Your task to perform on an android device: Add acer predator to the cart on target, then select checkout. Image 0: 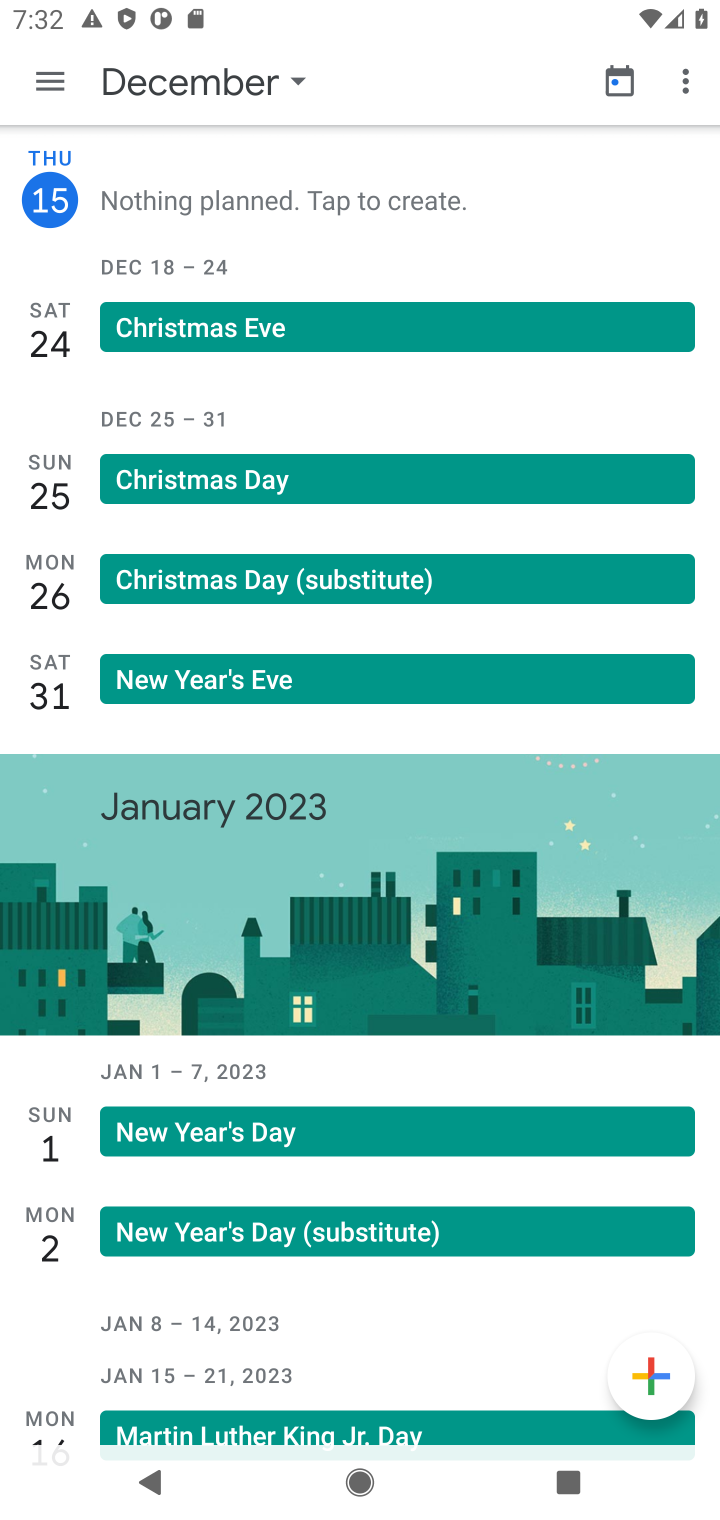
Step 0: press home button
Your task to perform on an android device: Add acer predator to the cart on target, then select checkout. Image 1: 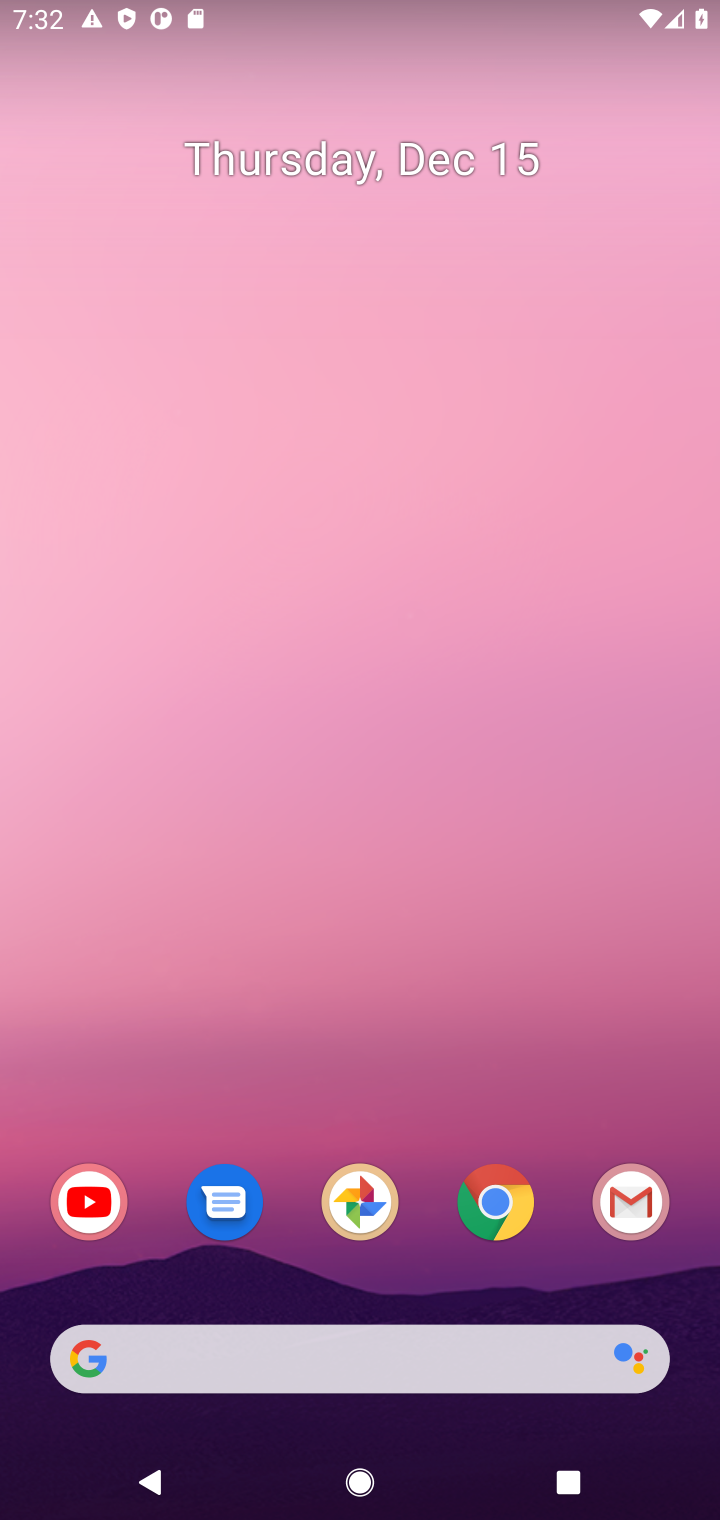
Step 1: click (504, 1206)
Your task to perform on an android device: Add acer predator to the cart on target, then select checkout. Image 2: 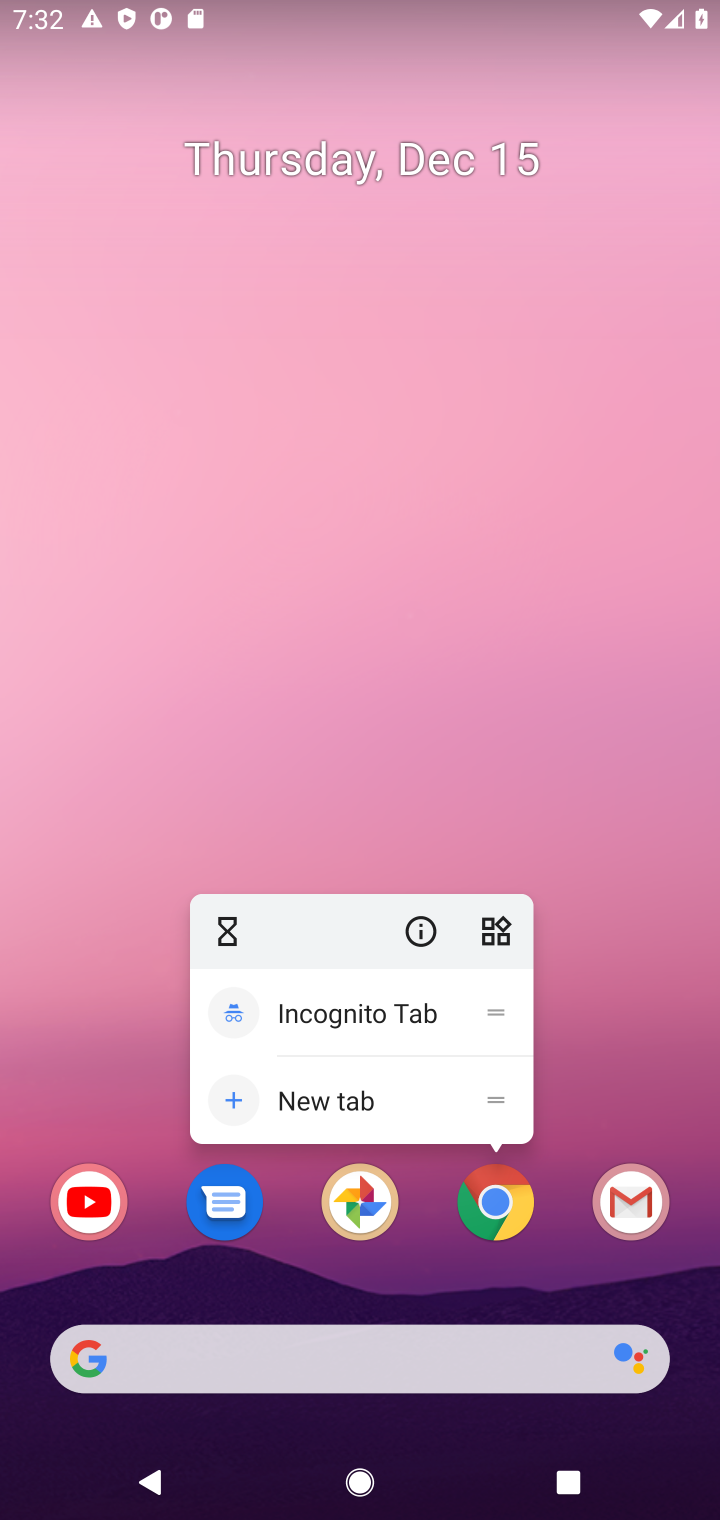
Step 2: click (504, 1206)
Your task to perform on an android device: Add acer predator to the cart on target, then select checkout. Image 3: 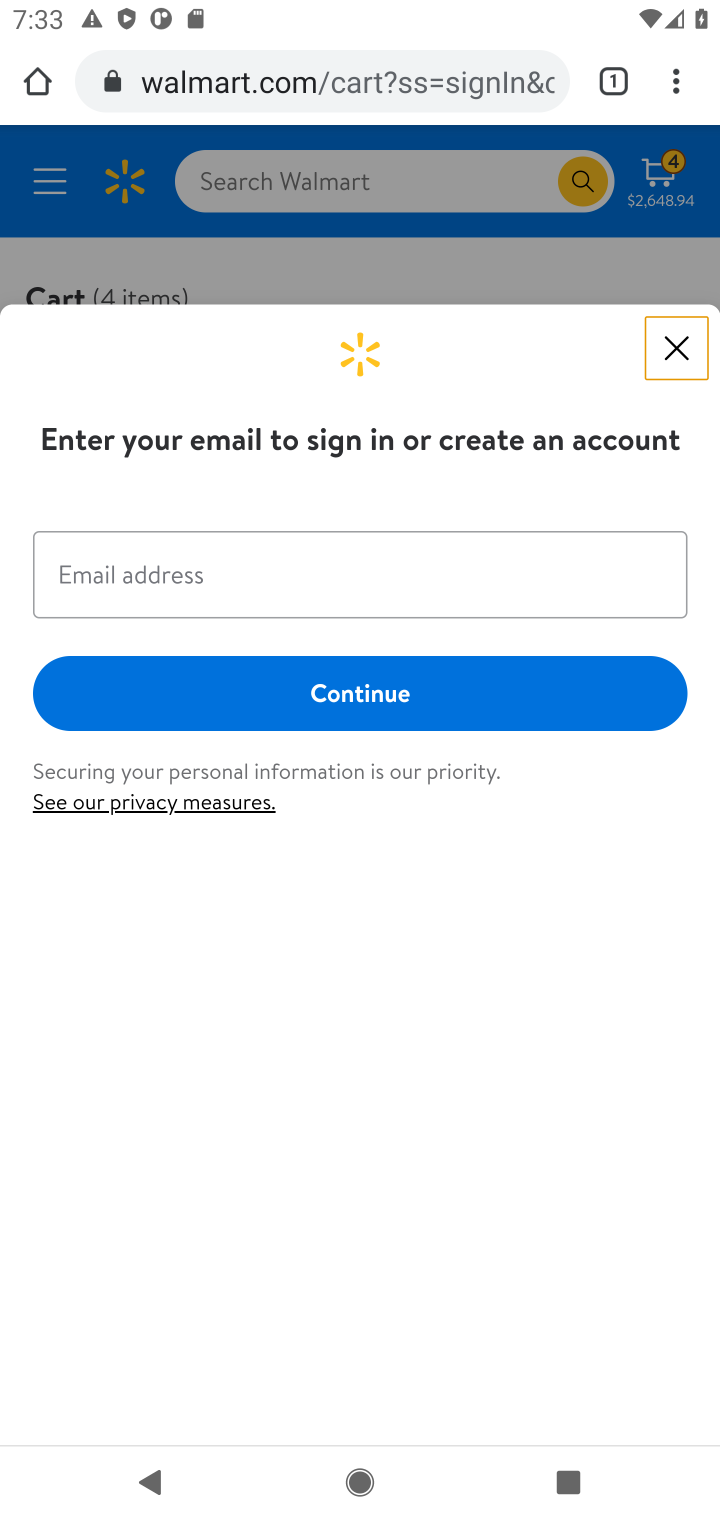
Step 3: click (288, 91)
Your task to perform on an android device: Add acer predator to the cart on target, then select checkout. Image 4: 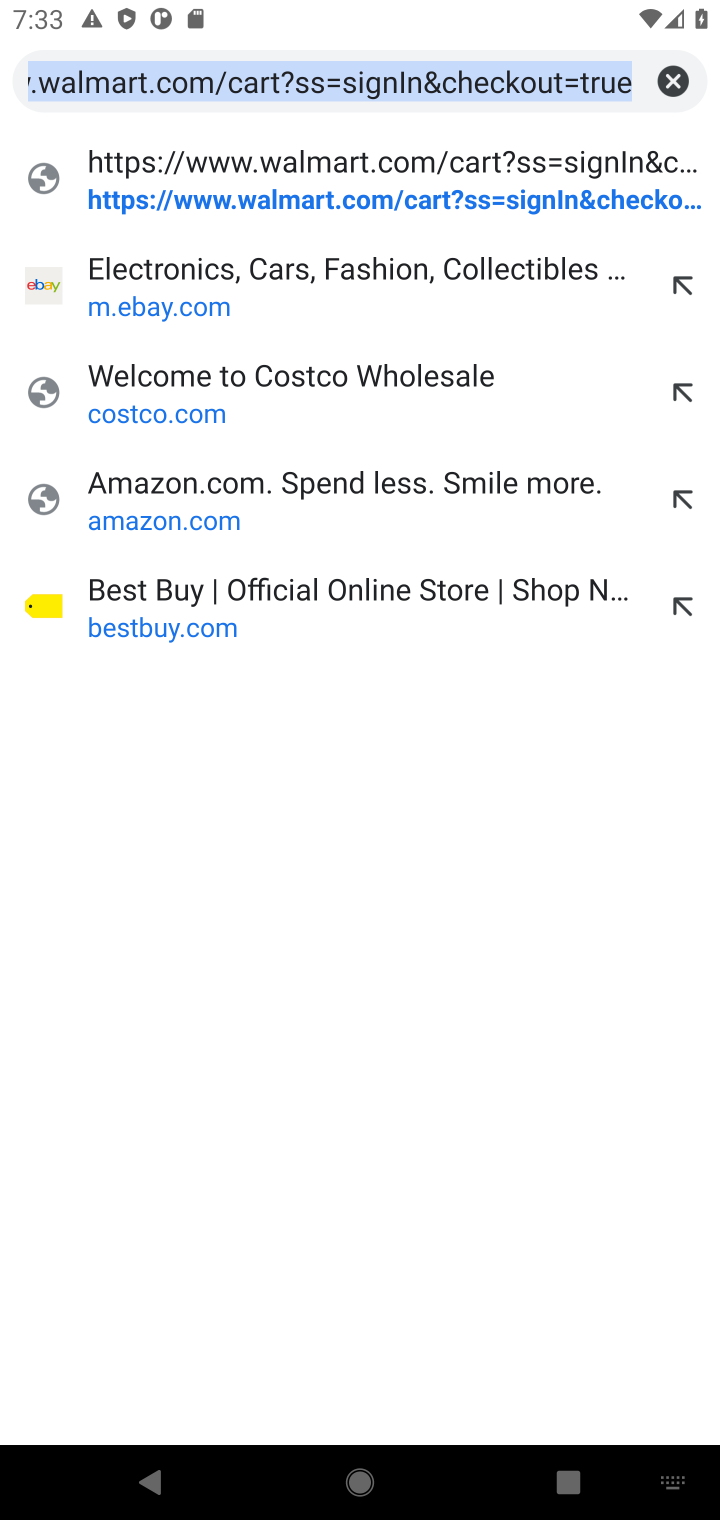
Step 4: type "target.com"
Your task to perform on an android device: Add acer predator to the cart on target, then select checkout. Image 5: 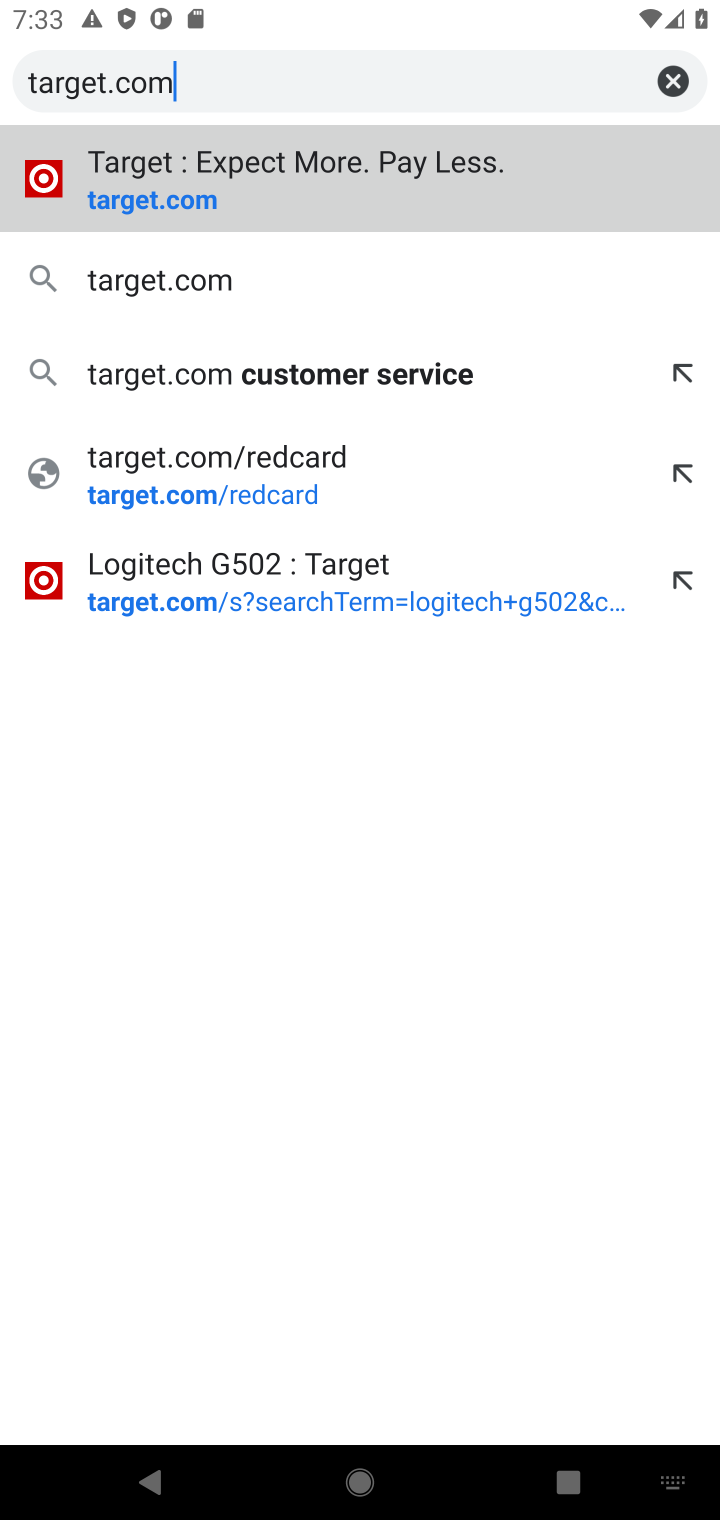
Step 5: click (154, 215)
Your task to perform on an android device: Add acer predator to the cart on target, then select checkout. Image 6: 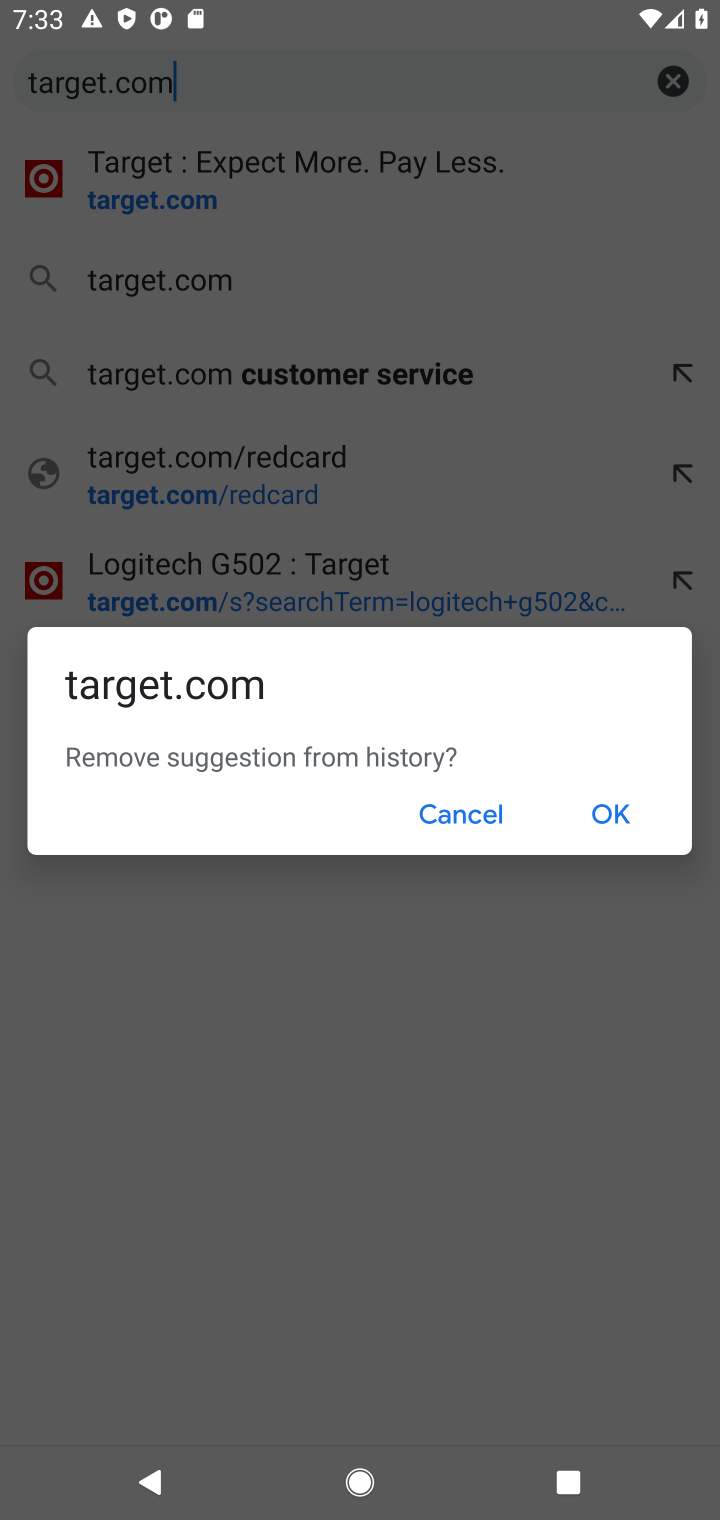
Step 6: click (488, 801)
Your task to perform on an android device: Add acer predator to the cart on target, then select checkout. Image 7: 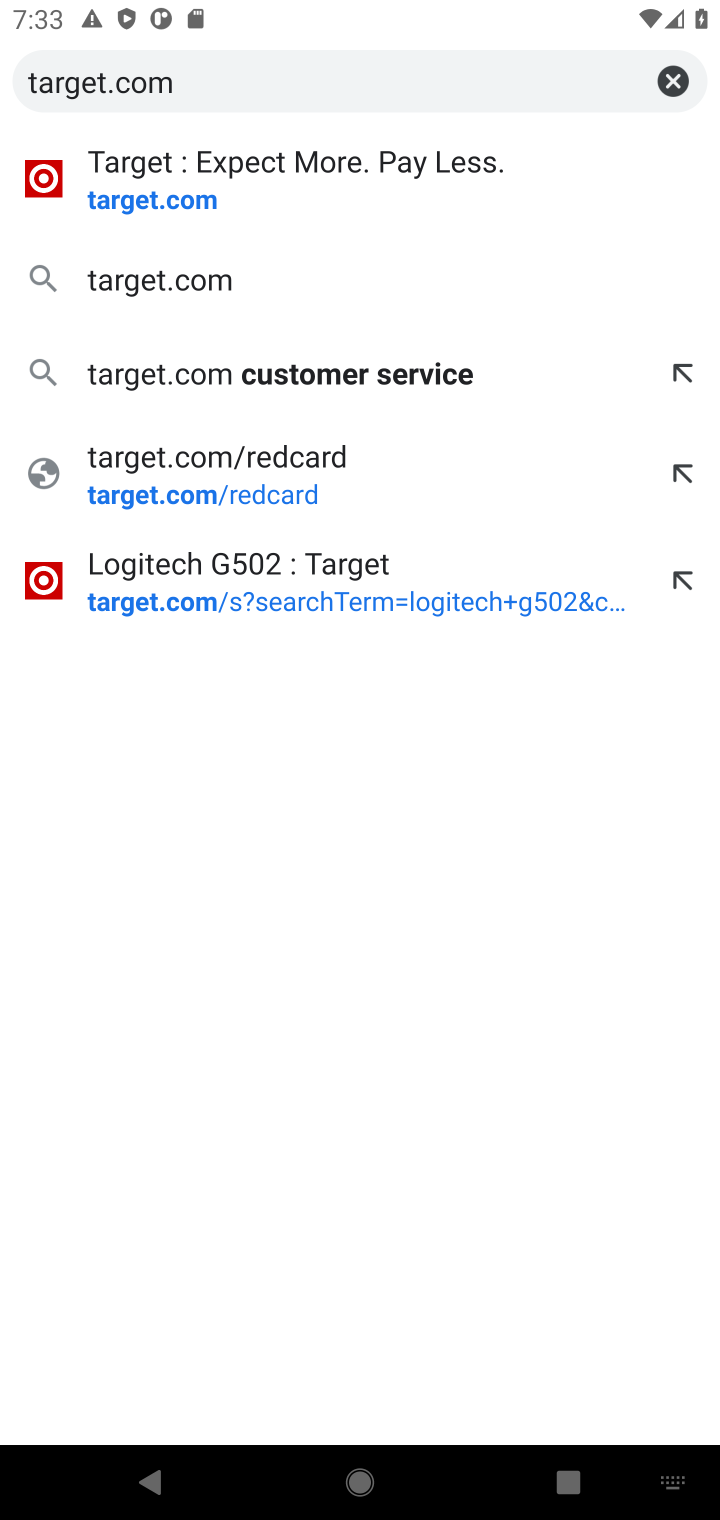
Step 7: click (197, 207)
Your task to perform on an android device: Add acer predator to the cart on target, then select checkout. Image 8: 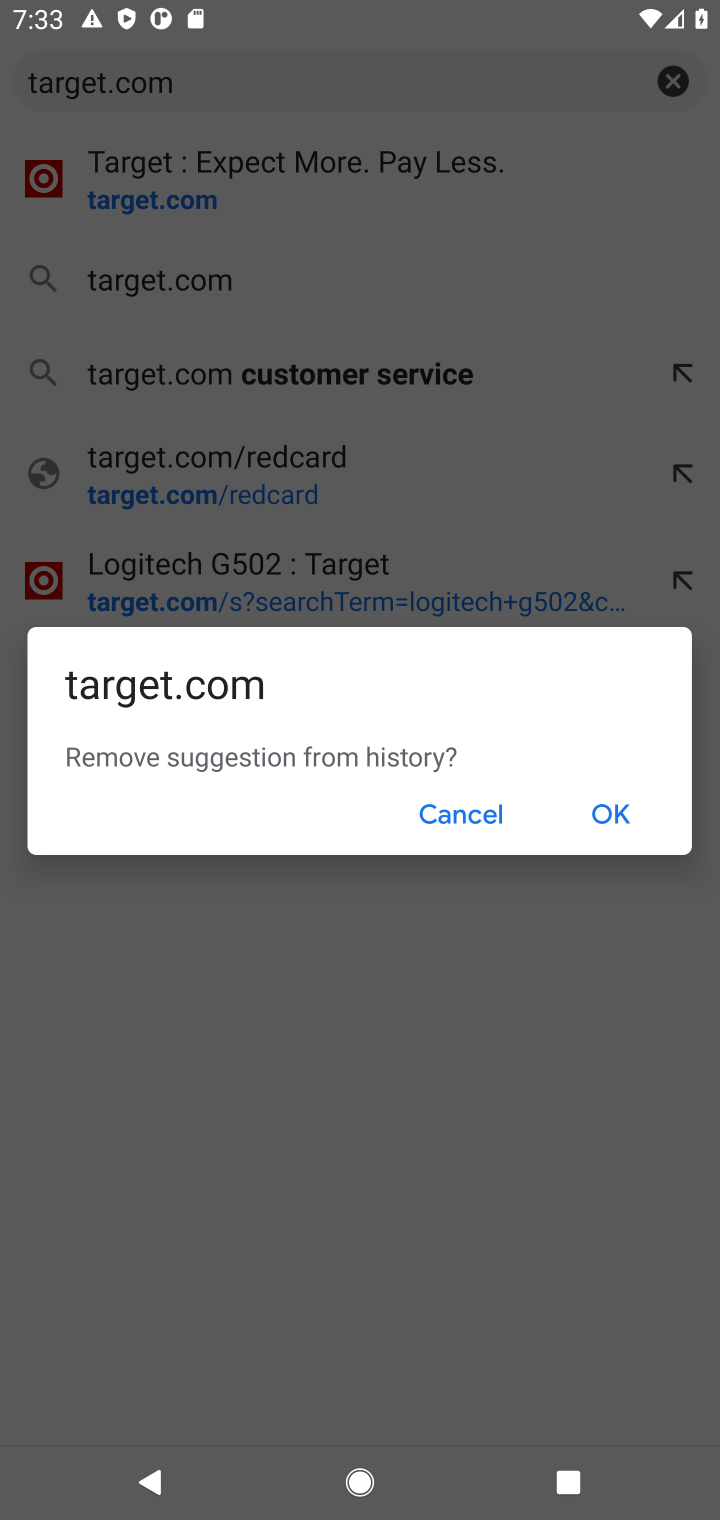
Step 8: click (434, 805)
Your task to perform on an android device: Add acer predator to the cart on target, then select checkout. Image 9: 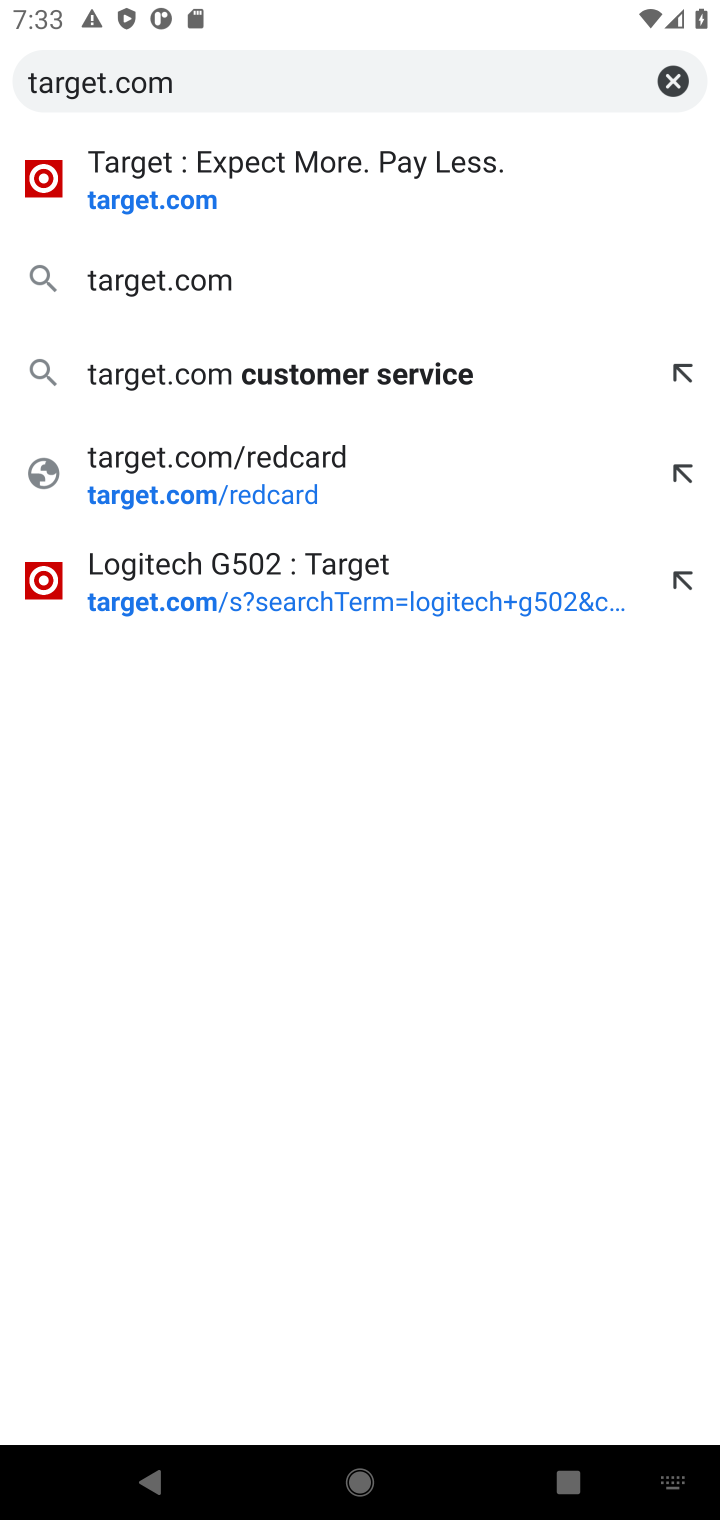
Step 9: click (152, 199)
Your task to perform on an android device: Add acer predator to the cart on target, then select checkout. Image 10: 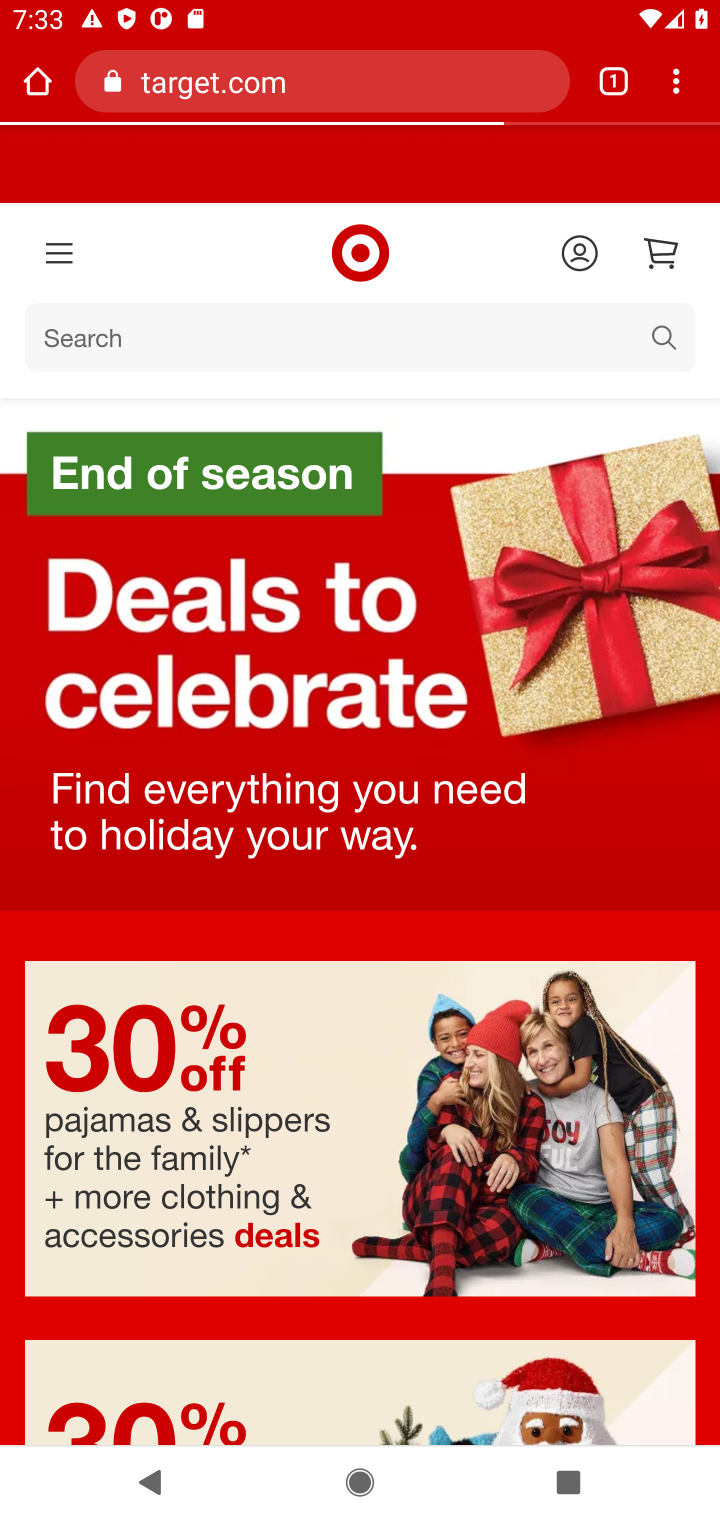
Step 10: click (75, 338)
Your task to perform on an android device: Add acer predator to the cart on target, then select checkout. Image 11: 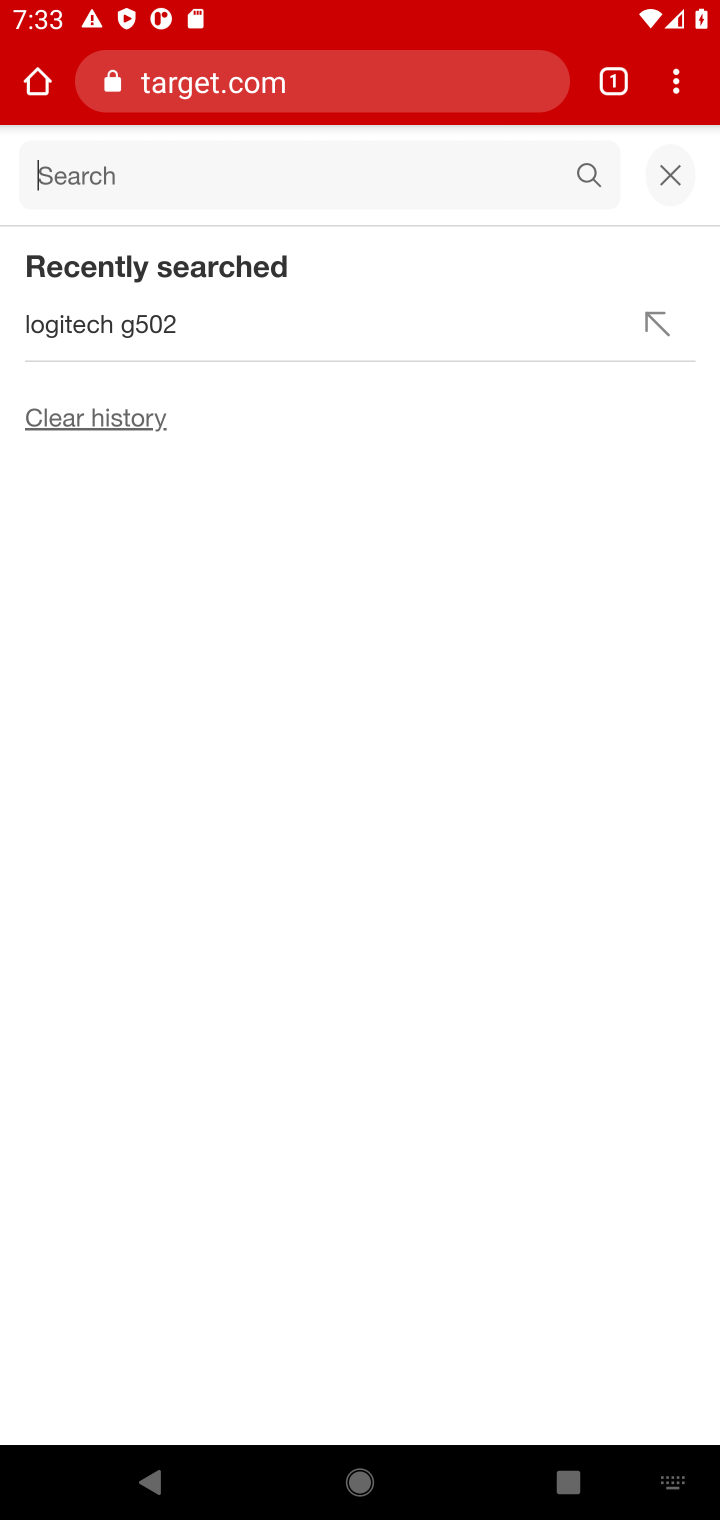
Step 11: type "acer predator"
Your task to perform on an android device: Add acer predator to the cart on target, then select checkout. Image 12: 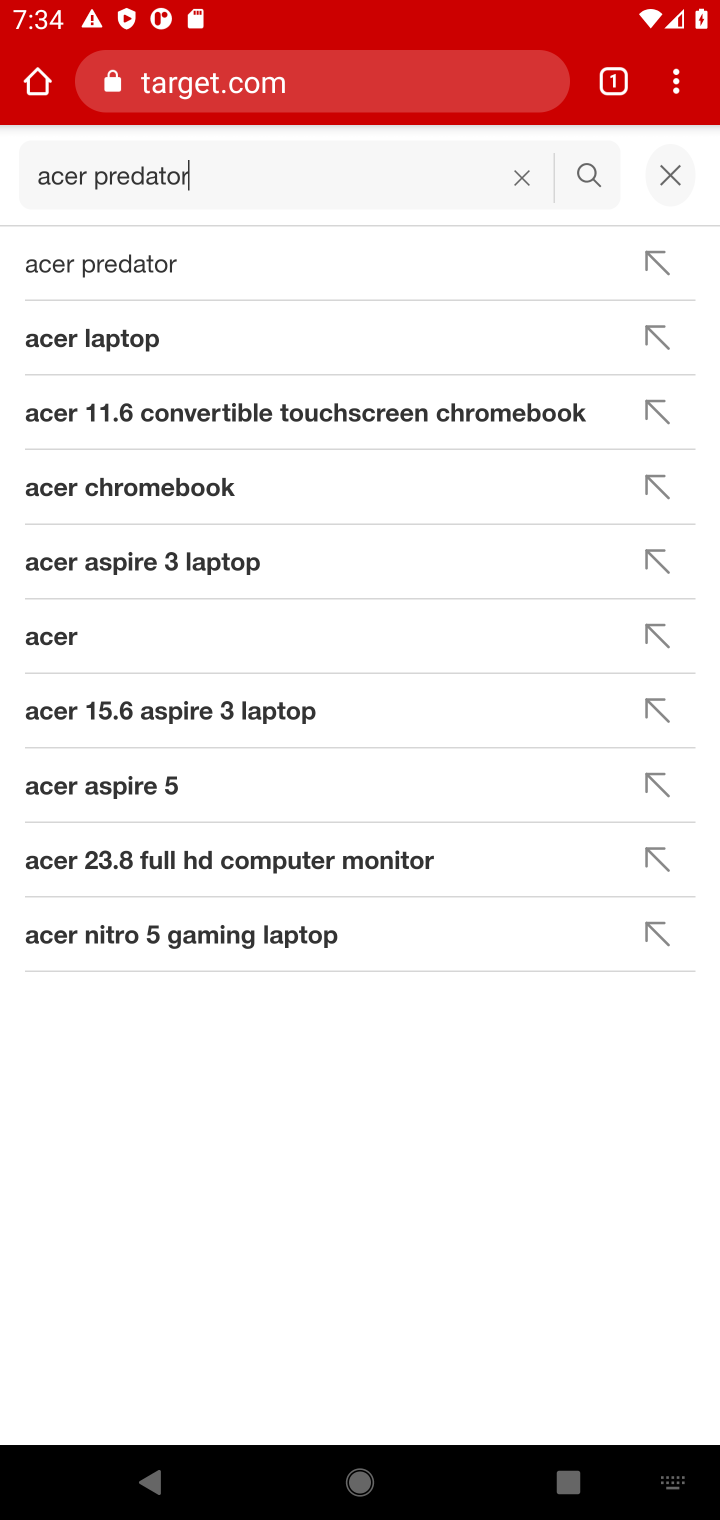
Step 12: click (132, 267)
Your task to perform on an android device: Add acer predator to the cart on target, then select checkout. Image 13: 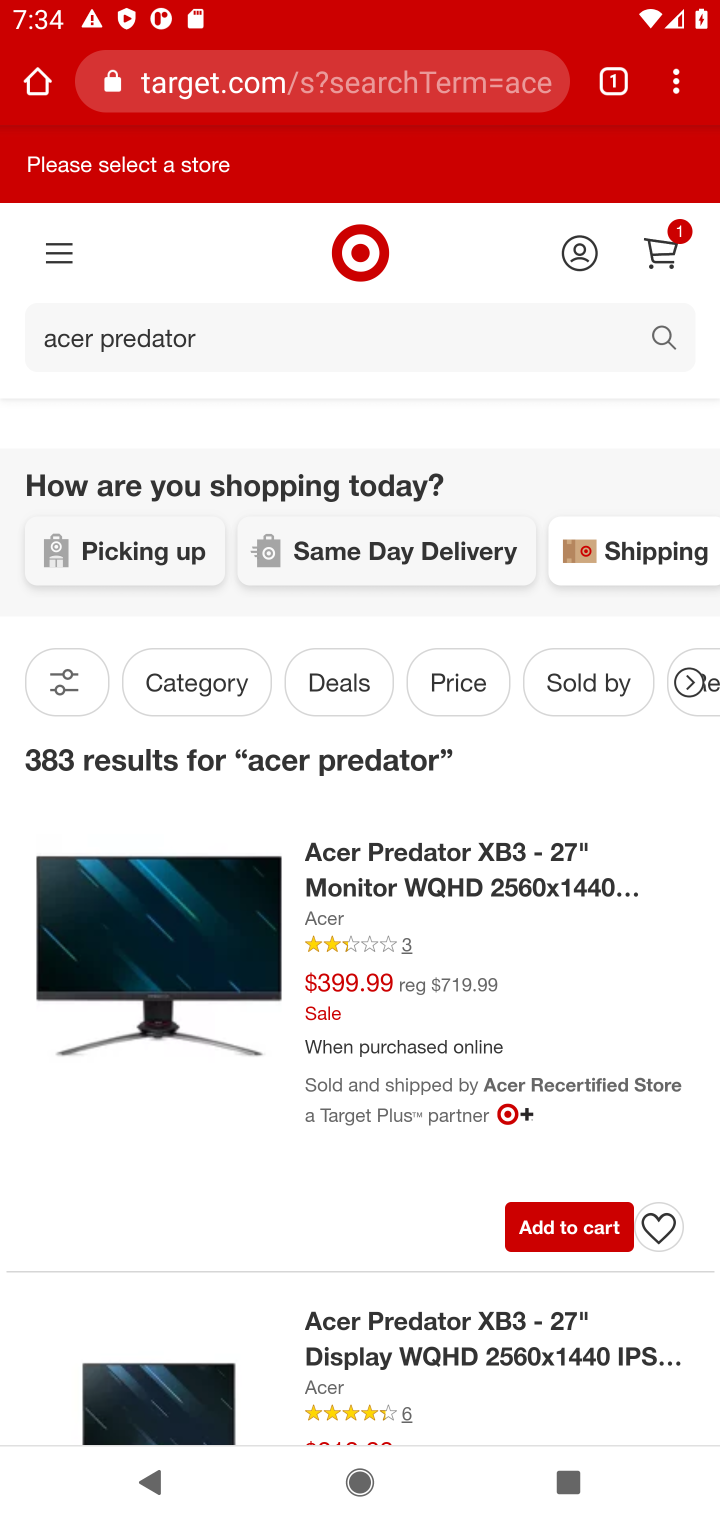
Step 13: click (548, 1239)
Your task to perform on an android device: Add acer predator to the cart on target, then select checkout. Image 14: 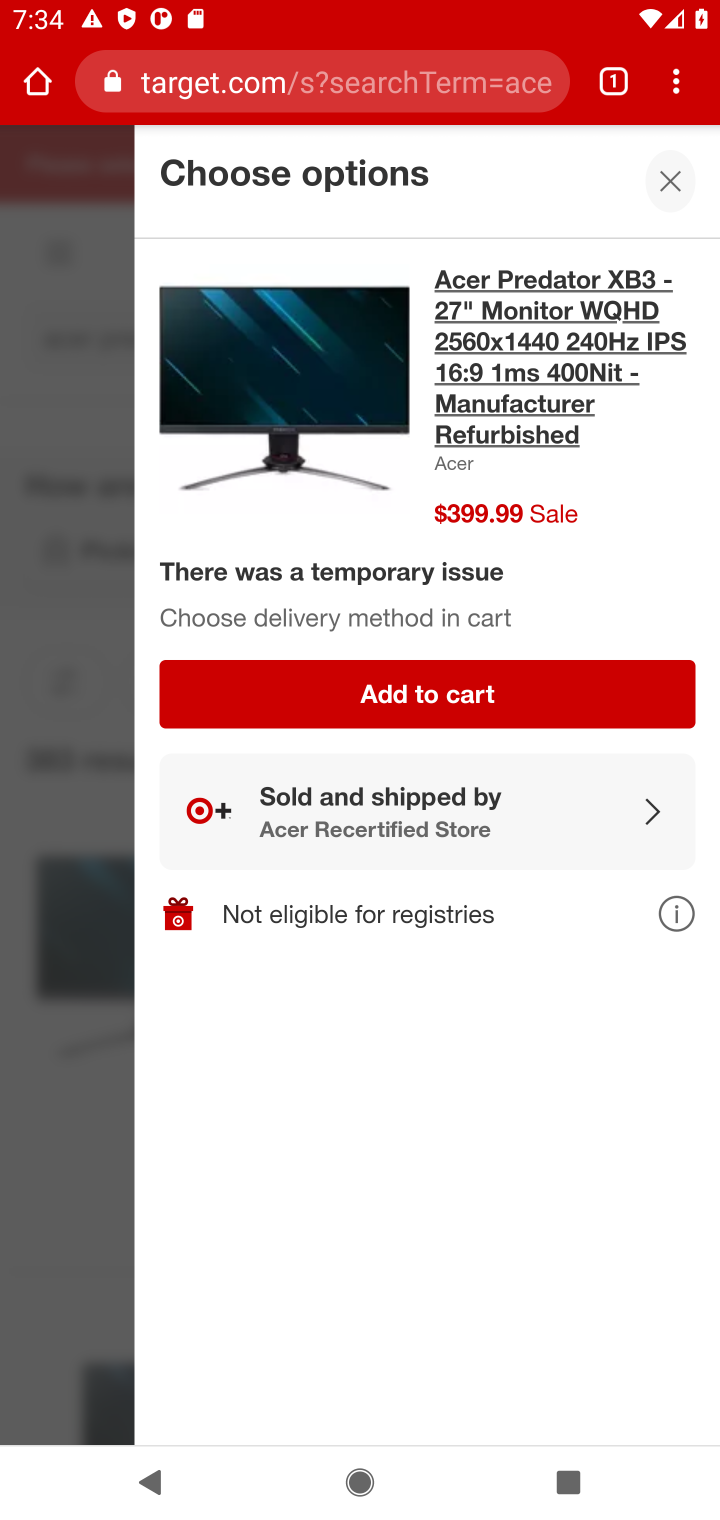
Step 14: click (351, 706)
Your task to perform on an android device: Add acer predator to the cart on target, then select checkout. Image 15: 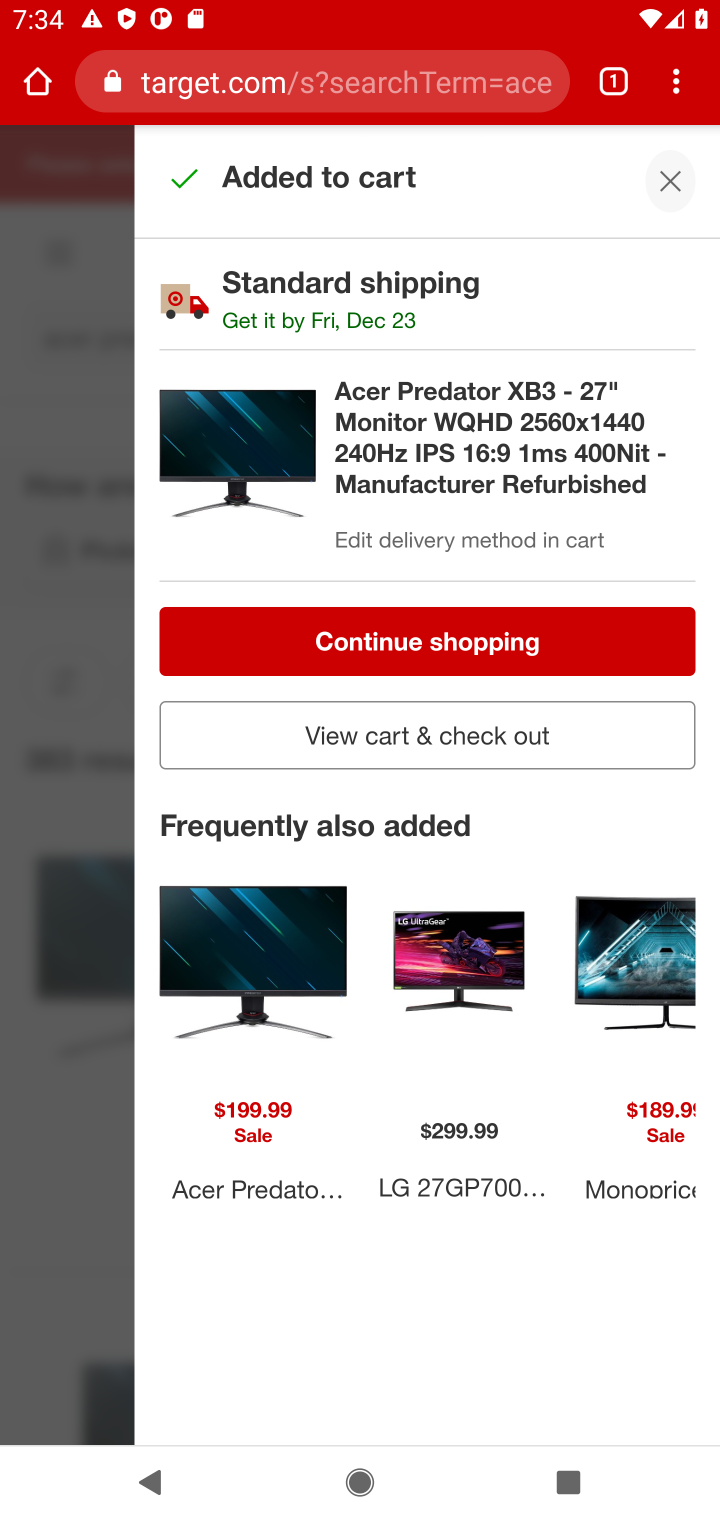
Step 15: click (351, 735)
Your task to perform on an android device: Add acer predator to the cart on target, then select checkout. Image 16: 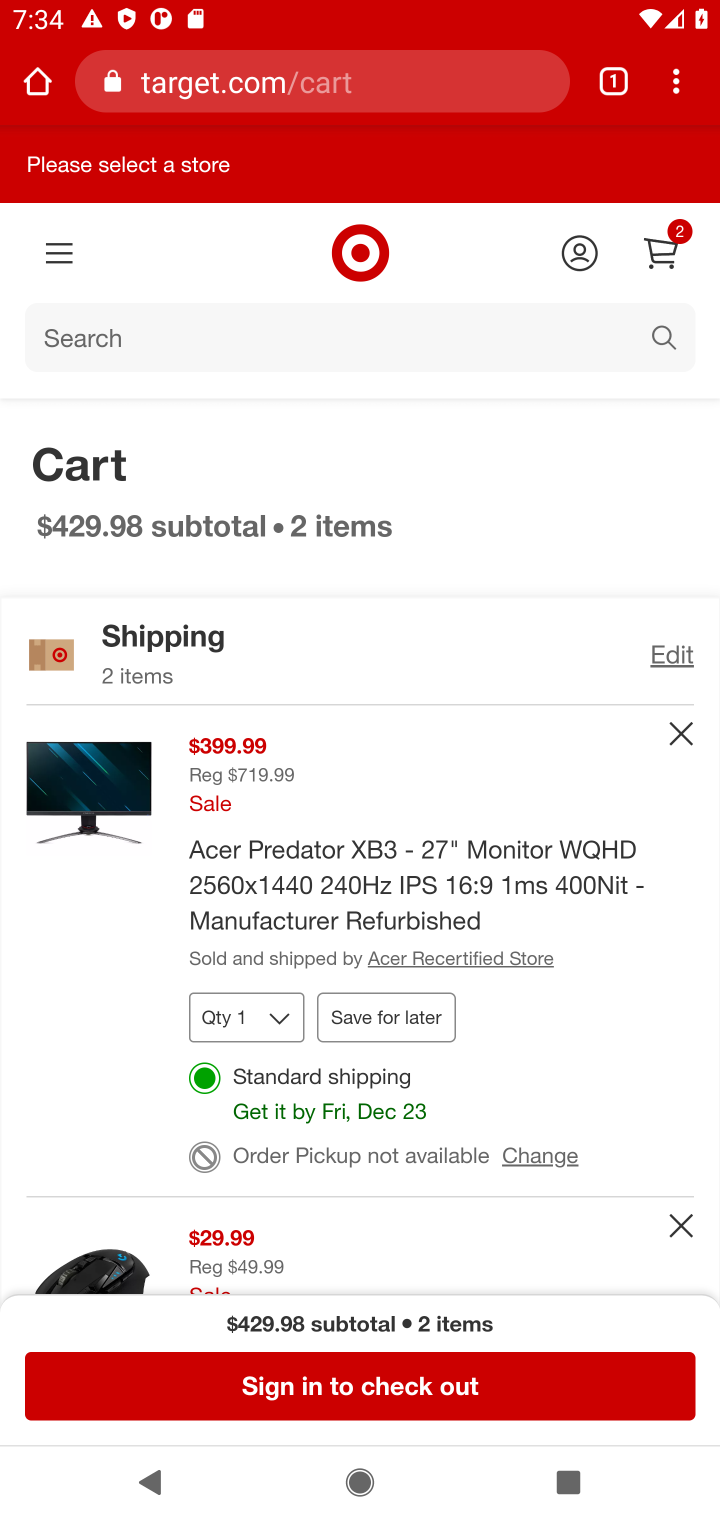
Step 16: click (257, 1388)
Your task to perform on an android device: Add acer predator to the cart on target, then select checkout. Image 17: 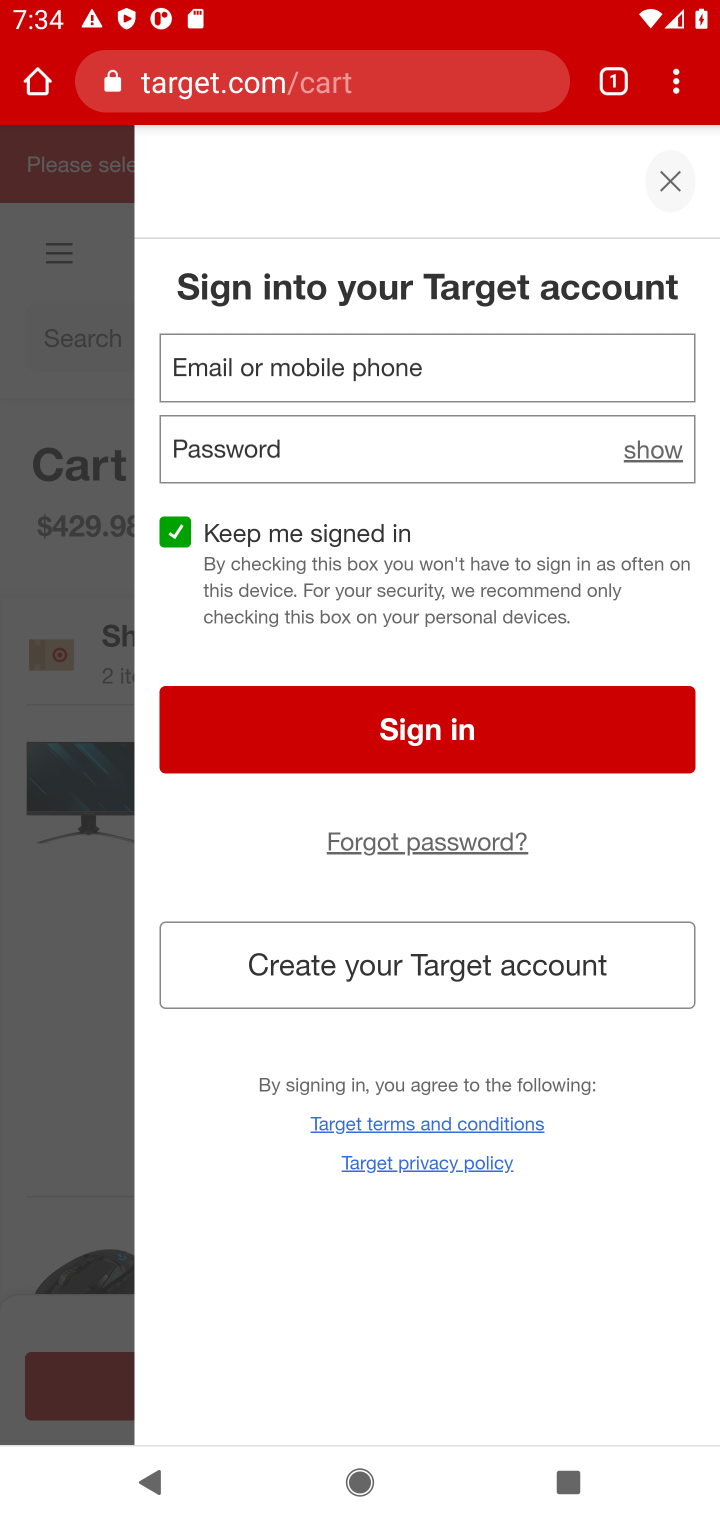
Step 17: task complete